Your task to perform on an android device: Open ESPN.com Image 0: 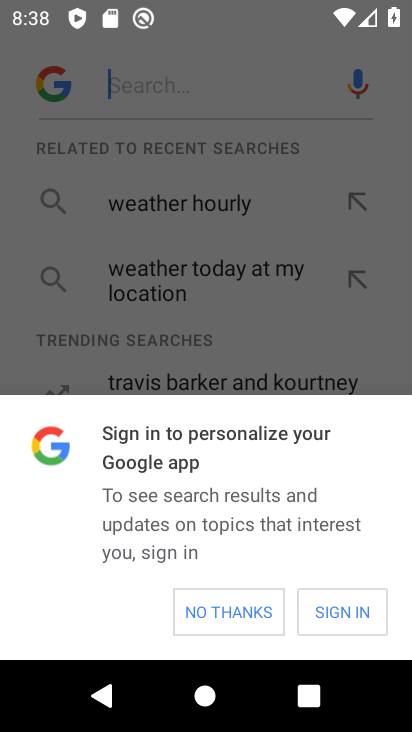
Step 0: click (249, 612)
Your task to perform on an android device: Open ESPN.com Image 1: 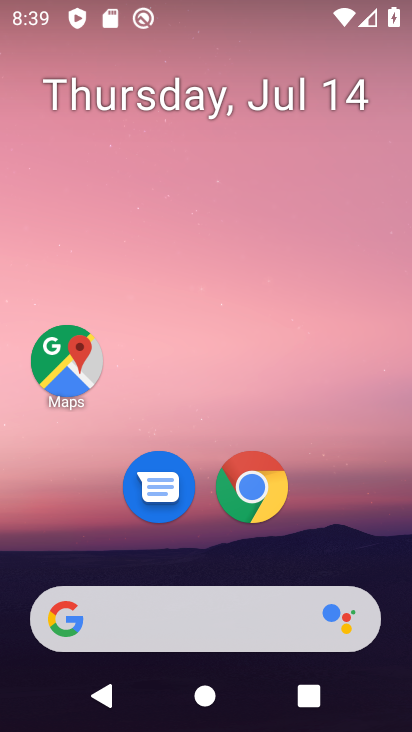
Step 1: click (231, 462)
Your task to perform on an android device: Open ESPN.com Image 2: 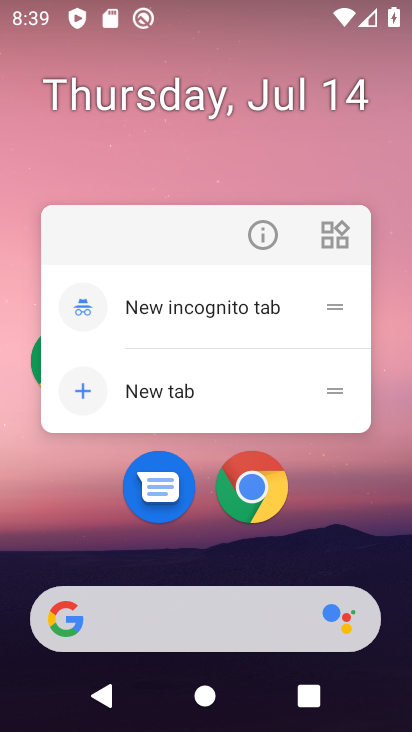
Step 2: click (250, 495)
Your task to perform on an android device: Open ESPN.com Image 3: 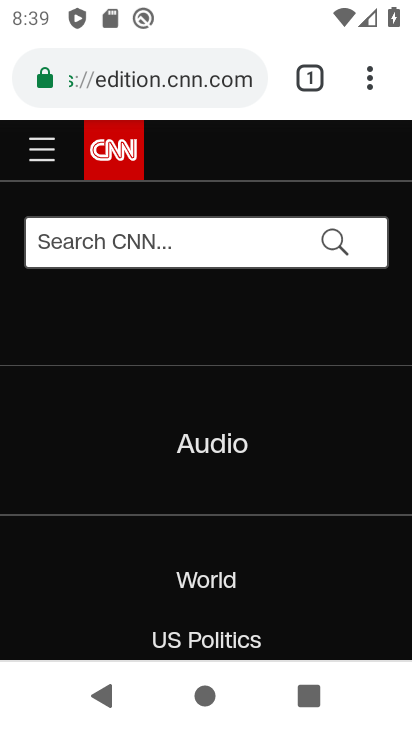
Step 3: click (303, 68)
Your task to perform on an android device: Open ESPN.com Image 4: 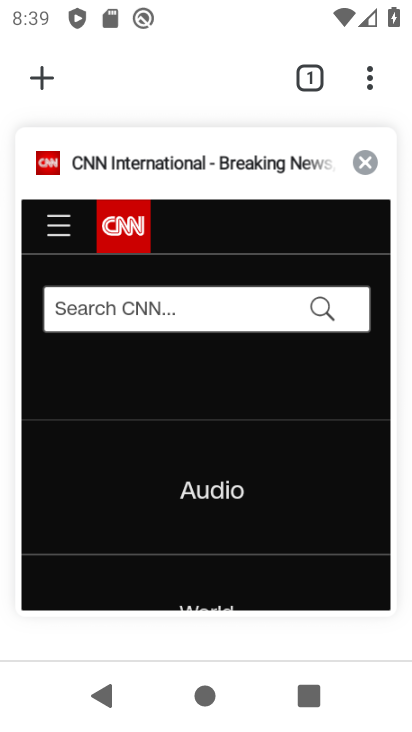
Step 4: click (36, 72)
Your task to perform on an android device: Open ESPN.com Image 5: 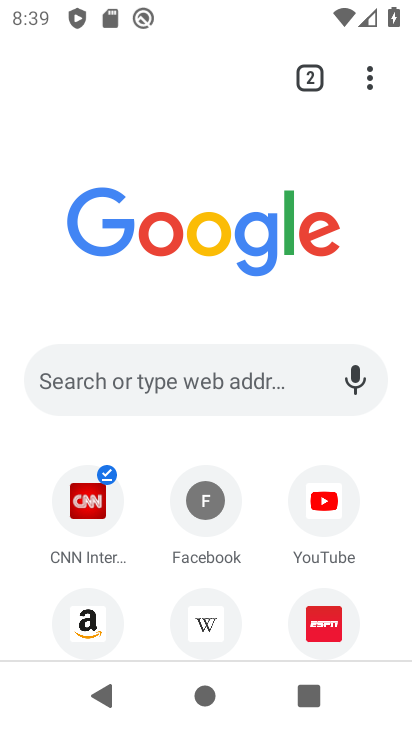
Step 5: click (320, 605)
Your task to perform on an android device: Open ESPN.com Image 6: 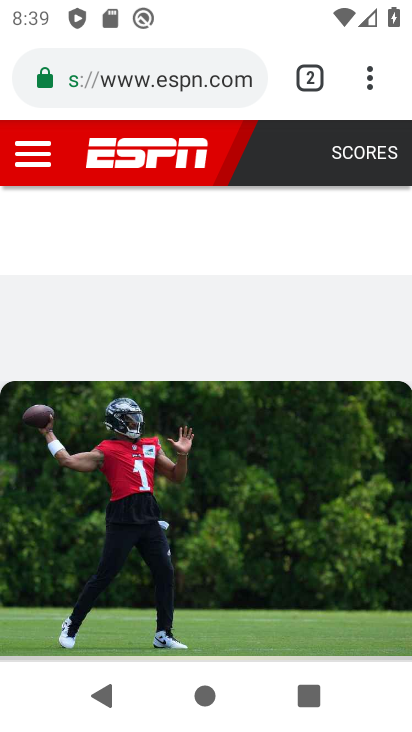
Step 6: task complete